Your task to perform on an android device: Open calendar and show me the third week of next month Image 0: 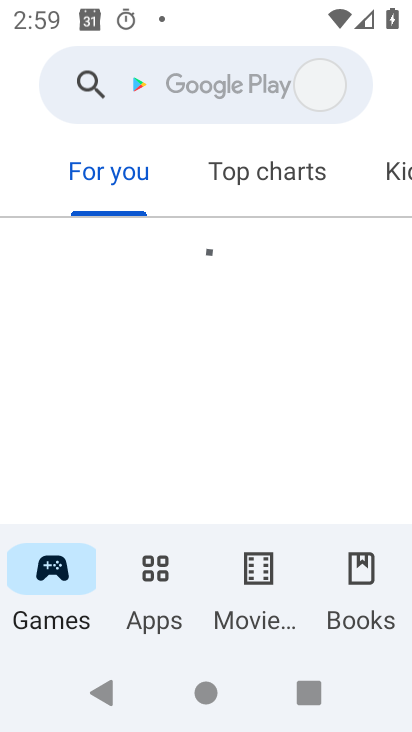
Step 0: press home button
Your task to perform on an android device: Open calendar and show me the third week of next month Image 1: 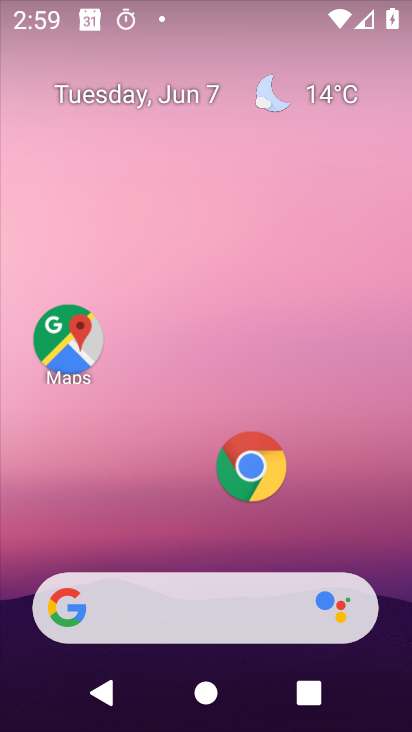
Step 1: drag from (171, 721) to (195, 100)
Your task to perform on an android device: Open calendar and show me the third week of next month Image 2: 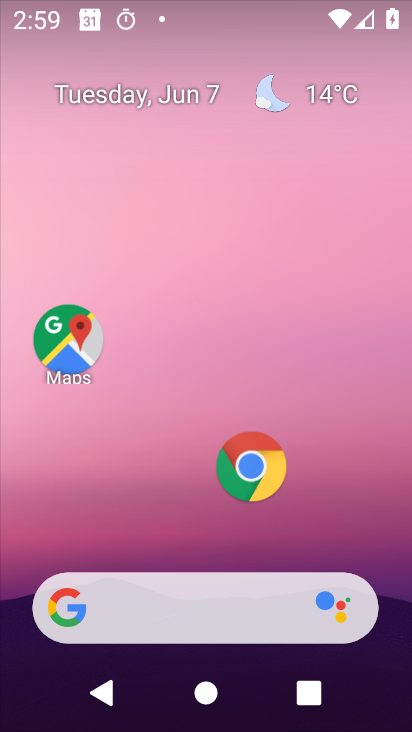
Step 2: drag from (149, 723) to (82, 0)
Your task to perform on an android device: Open calendar and show me the third week of next month Image 3: 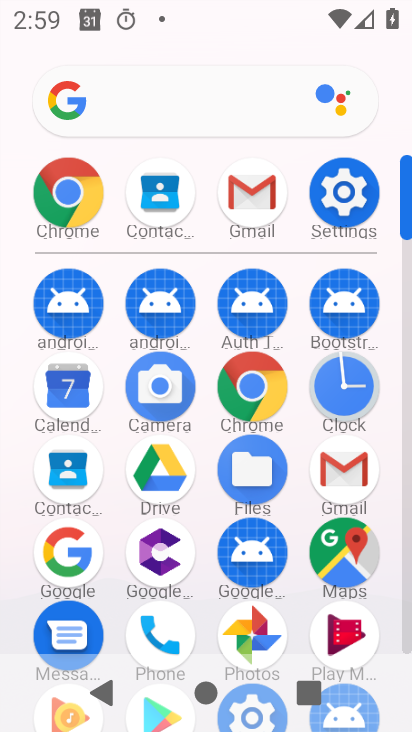
Step 3: click (77, 406)
Your task to perform on an android device: Open calendar and show me the third week of next month Image 4: 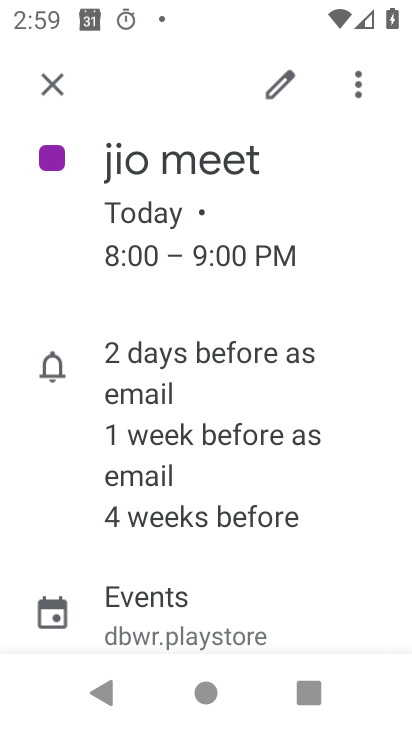
Step 4: click (56, 87)
Your task to perform on an android device: Open calendar and show me the third week of next month Image 5: 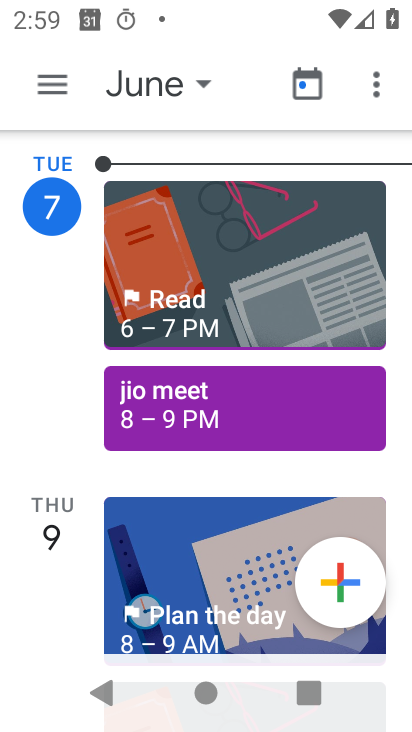
Step 5: click (187, 95)
Your task to perform on an android device: Open calendar and show me the third week of next month Image 6: 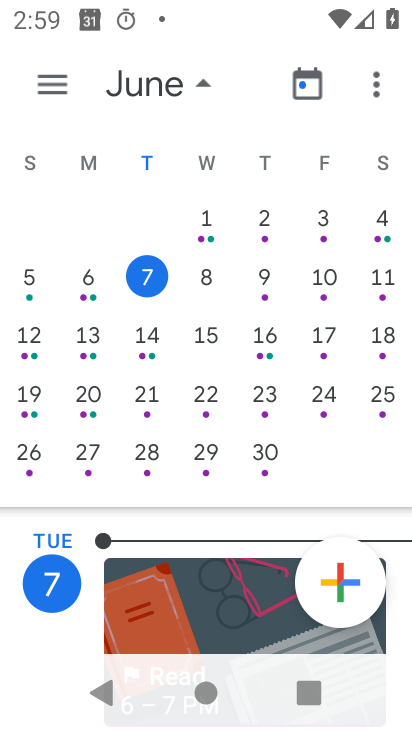
Step 6: drag from (389, 452) to (2, 204)
Your task to perform on an android device: Open calendar and show me the third week of next month Image 7: 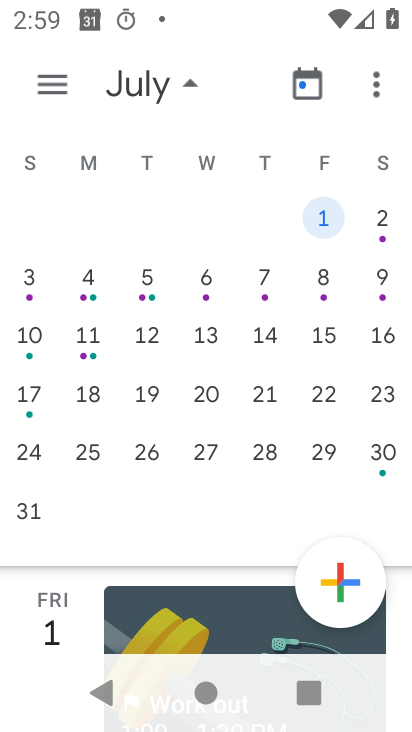
Step 7: click (172, 82)
Your task to perform on an android device: Open calendar and show me the third week of next month Image 8: 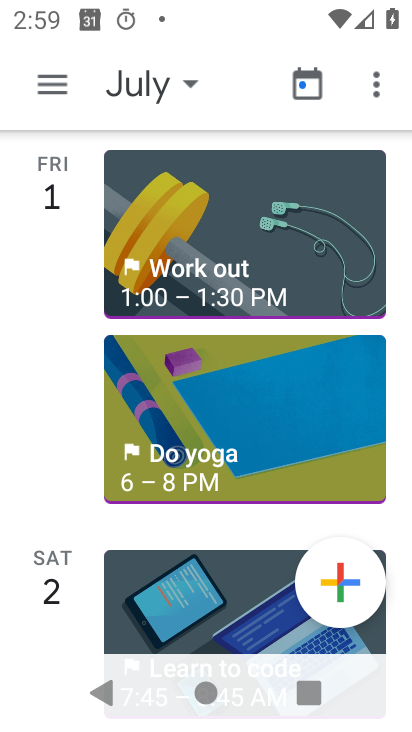
Step 8: click (45, 83)
Your task to perform on an android device: Open calendar and show me the third week of next month Image 9: 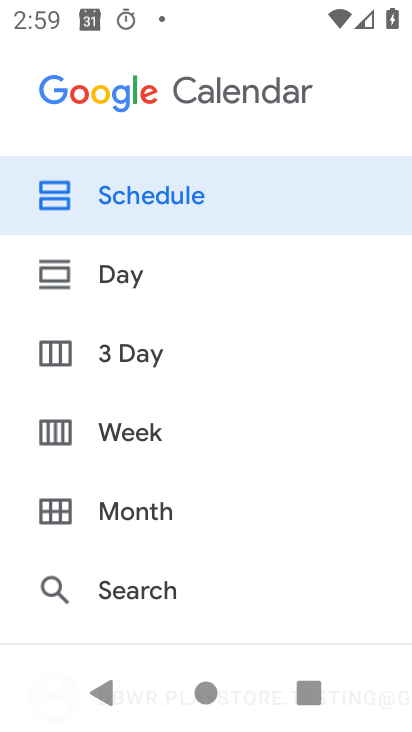
Step 9: click (158, 447)
Your task to perform on an android device: Open calendar and show me the third week of next month Image 10: 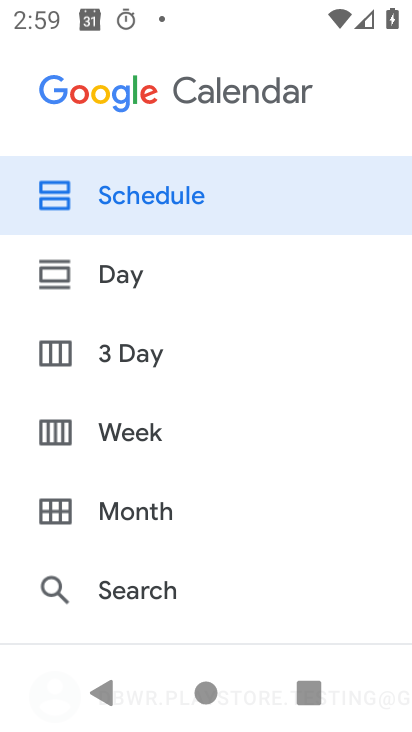
Step 10: click (110, 431)
Your task to perform on an android device: Open calendar and show me the third week of next month Image 11: 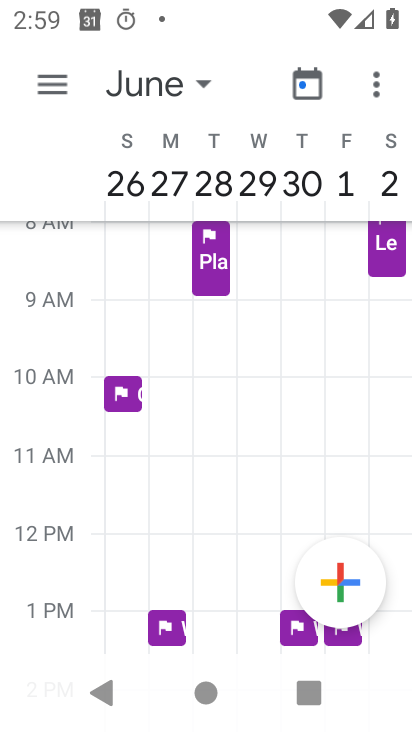
Step 11: task complete